Your task to perform on an android device: What's the weather today? Image 0: 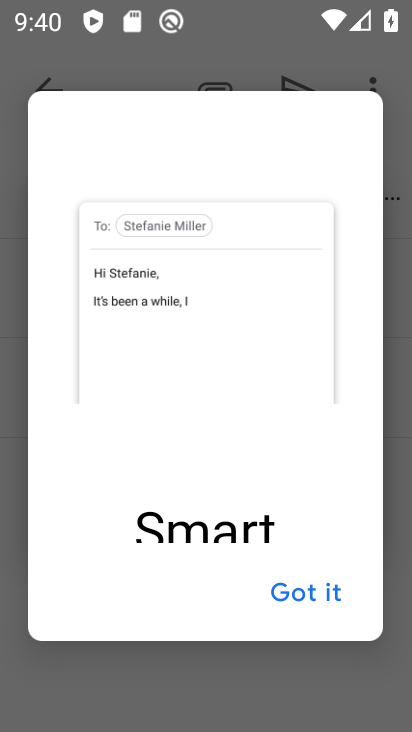
Step 0: press back button
Your task to perform on an android device: What's the weather today? Image 1: 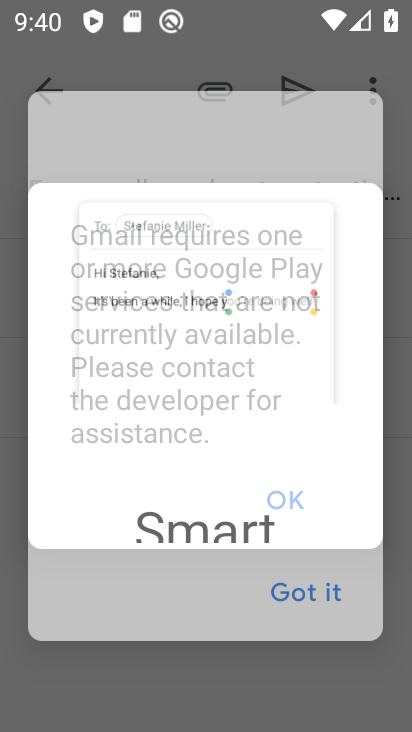
Step 1: press home button
Your task to perform on an android device: What's the weather today? Image 2: 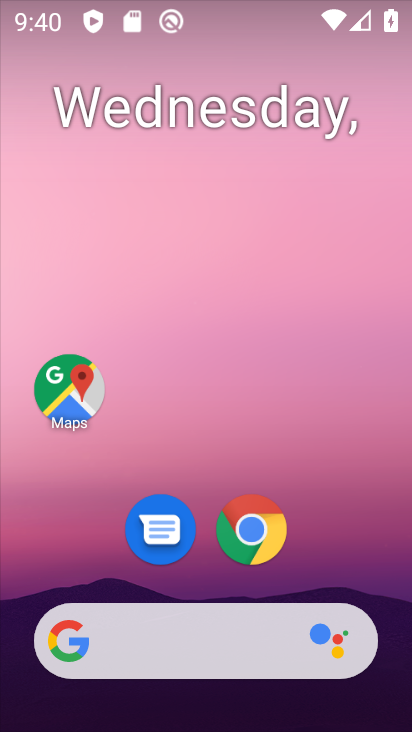
Step 2: drag from (62, 576) to (202, 121)
Your task to perform on an android device: What's the weather today? Image 3: 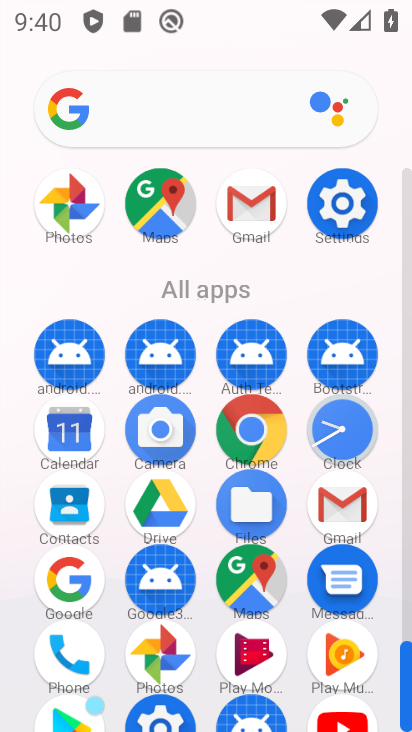
Step 3: click (70, 585)
Your task to perform on an android device: What's the weather today? Image 4: 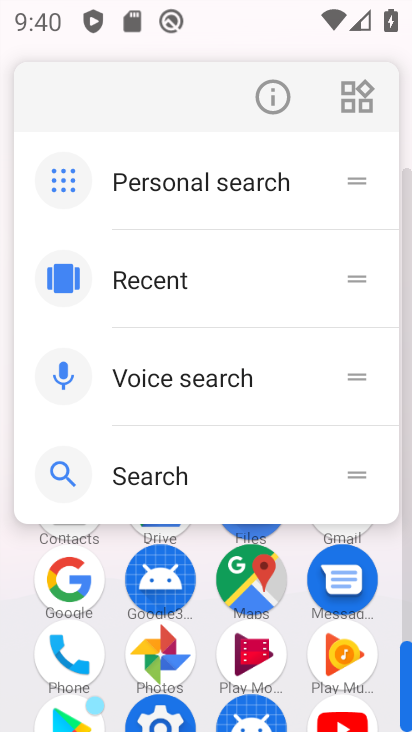
Step 4: click (70, 585)
Your task to perform on an android device: What's the weather today? Image 5: 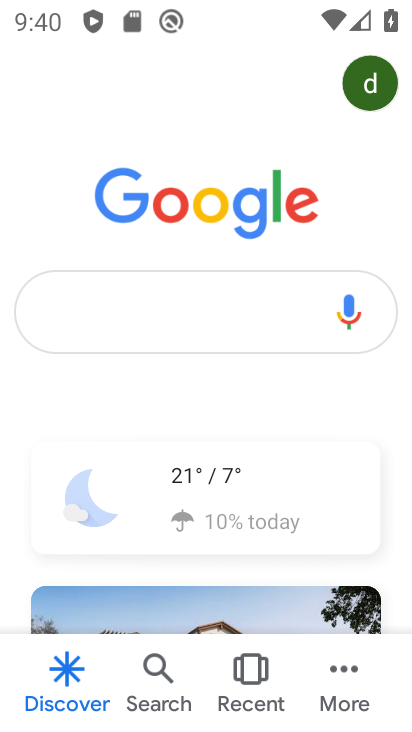
Step 5: click (197, 533)
Your task to perform on an android device: What's the weather today? Image 6: 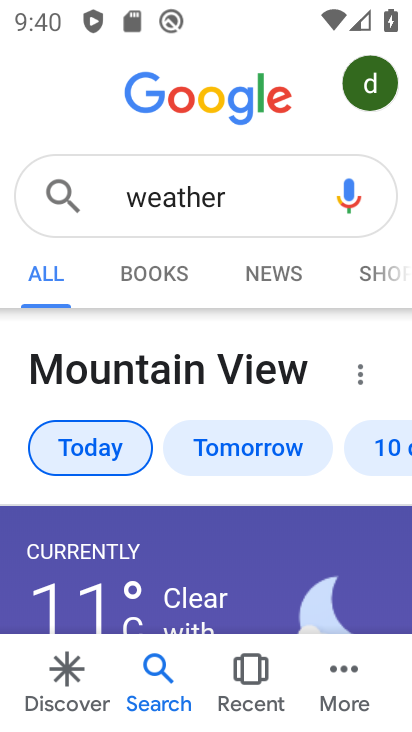
Step 6: task complete